Your task to perform on an android device: Open a new private window in Chrome Image 0: 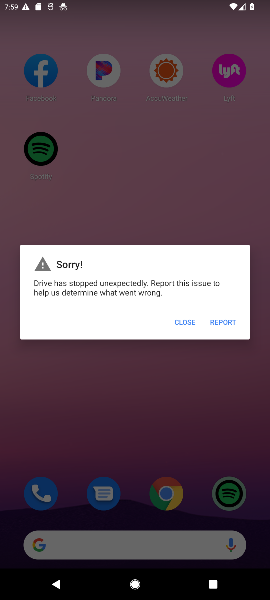
Step 0: click (182, 317)
Your task to perform on an android device: Open a new private window in Chrome Image 1: 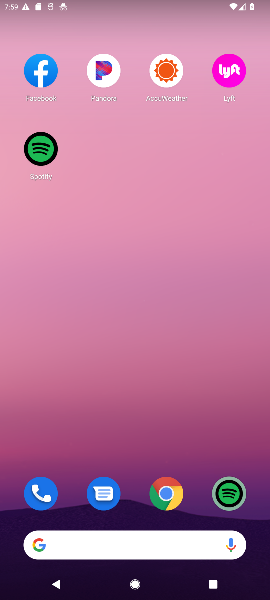
Step 1: drag from (122, 481) to (119, 103)
Your task to perform on an android device: Open a new private window in Chrome Image 2: 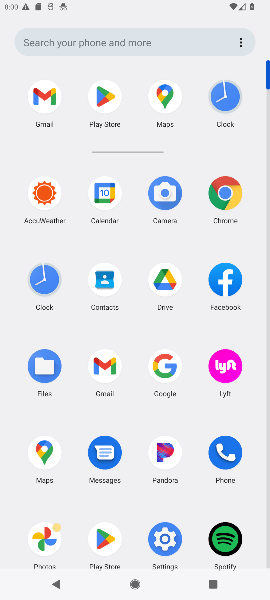
Step 2: click (229, 195)
Your task to perform on an android device: Open a new private window in Chrome Image 3: 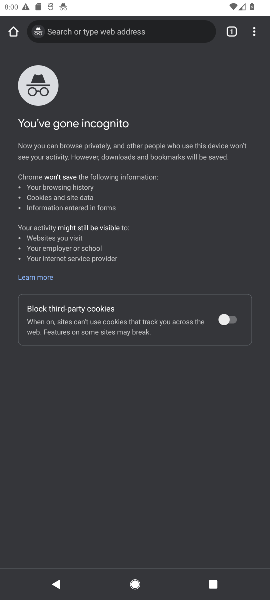
Step 3: click (251, 36)
Your task to perform on an android device: Open a new private window in Chrome Image 4: 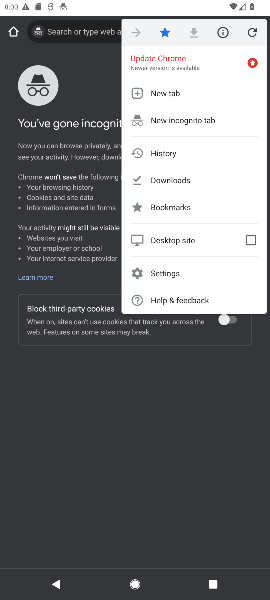
Step 4: click (174, 93)
Your task to perform on an android device: Open a new private window in Chrome Image 5: 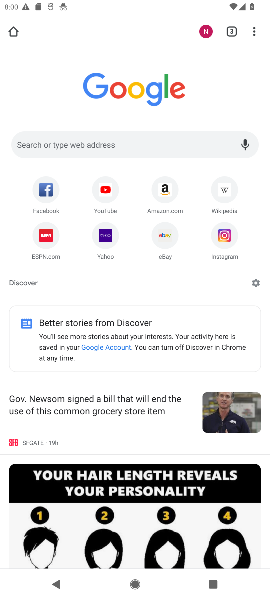
Step 5: task complete